Your task to perform on an android device: Do I have any events today? Image 0: 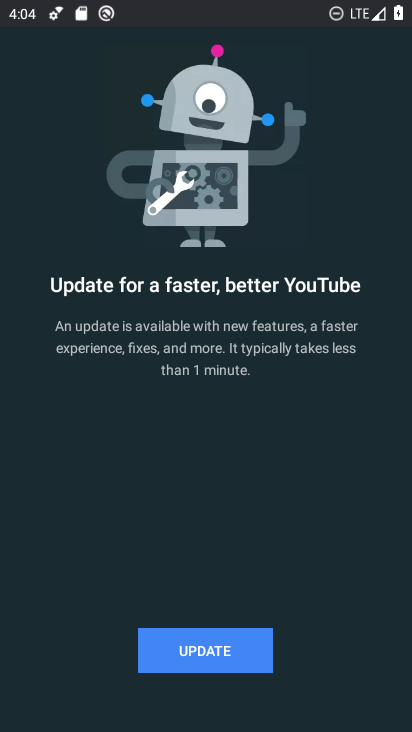
Step 0: press home button
Your task to perform on an android device: Do I have any events today? Image 1: 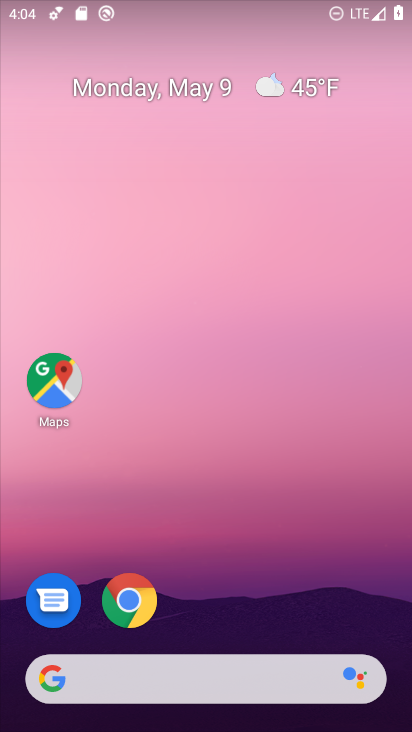
Step 1: drag from (226, 597) to (334, 116)
Your task to perform on an android device: Do I have any events today? Image 2: 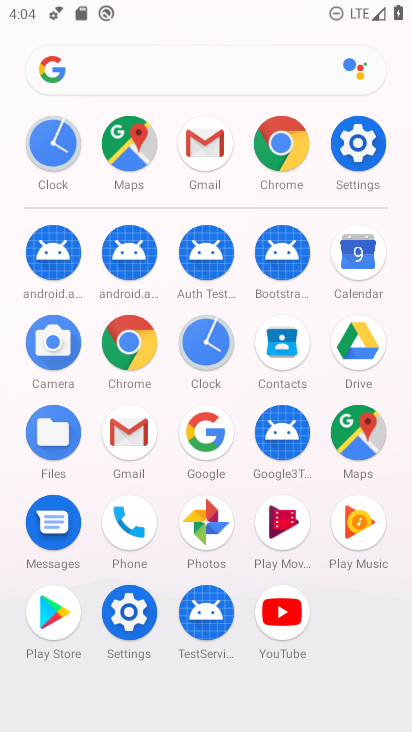
Step 2: click (367, 262)
Your task to perform on an android device: Do I have any events today? Image 3: 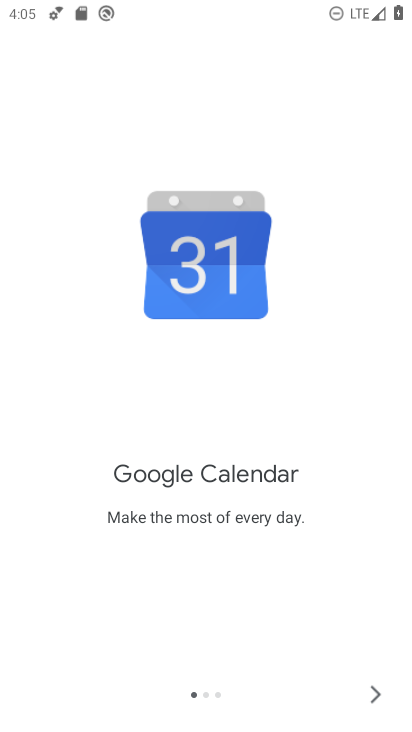
Step 3: click (391, 689)
Your task to perform on an android device: Do I have any events today? Image 4: 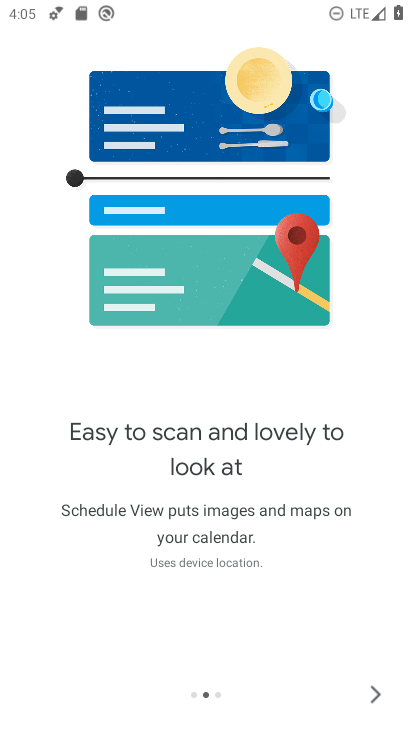
Step 4: click (380, 698)
Your task to perform on an android device: Do I have any events today? Image 5: 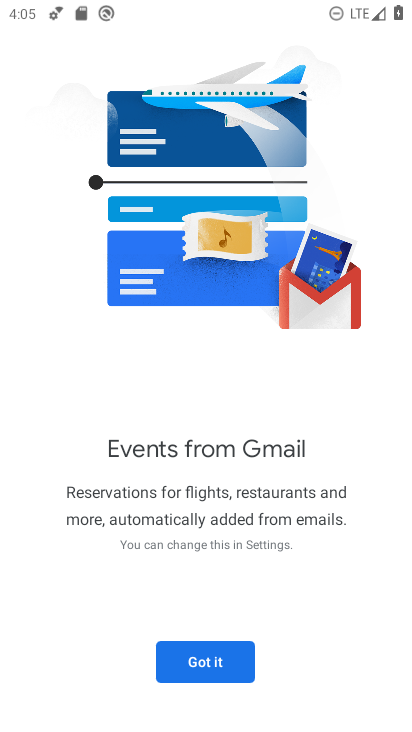
Step 5: click (225, 663)
Your task to perform on an android device: Do I have any events today? Image 6: 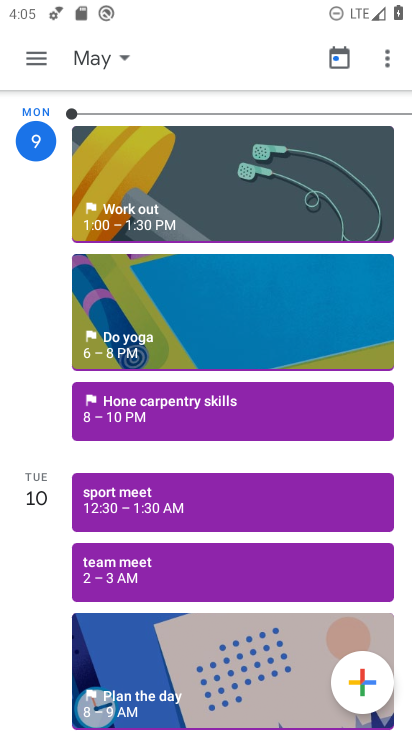
Step 6: click (35, 55)
Your task to perform on an android device: Do I have any events today? Image 7: 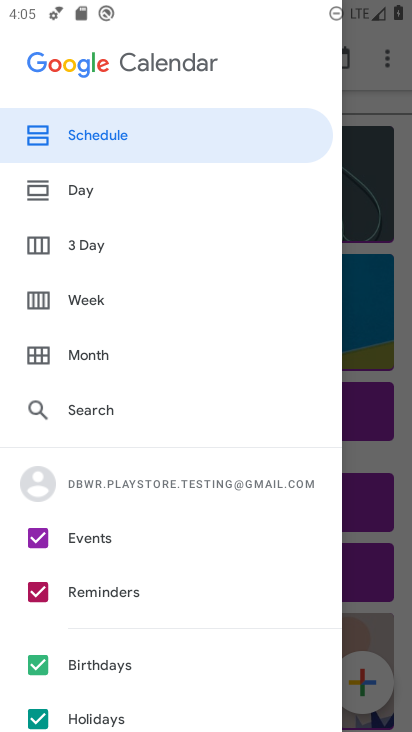
Step 7: click (128, 588)
Your task to perform on an android device: Do I have any events today? Image 8: 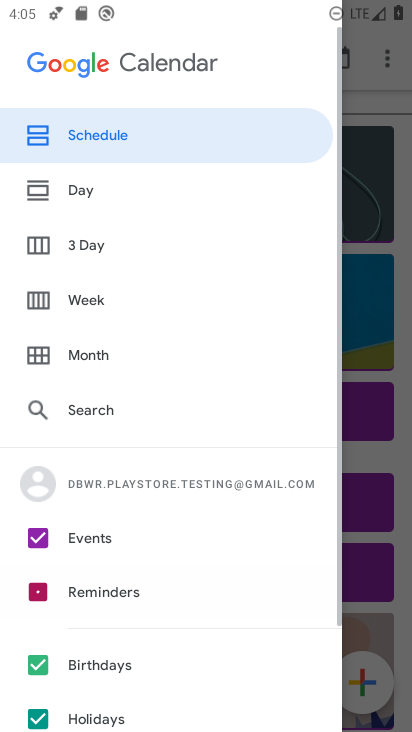
Step 8: click (113, 648)
Your task to perform on an android device: Do I have any events today? Image 9: 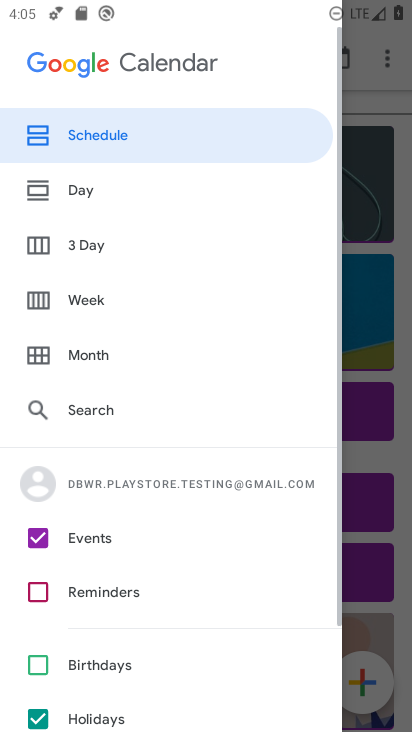
Step 9: drag from (113, 676) to (170, 357)
Your task to perform on an android device: Do I have any events today? Image 10: 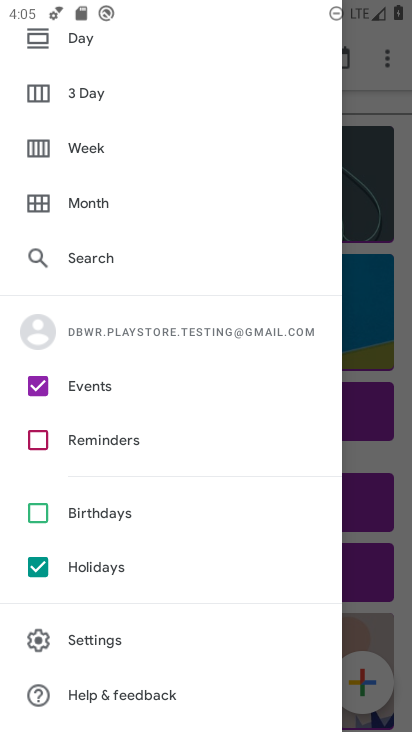
Step 10: click (71, 576)
Your task to perform on an android device: Do I have any events today? Image 11: 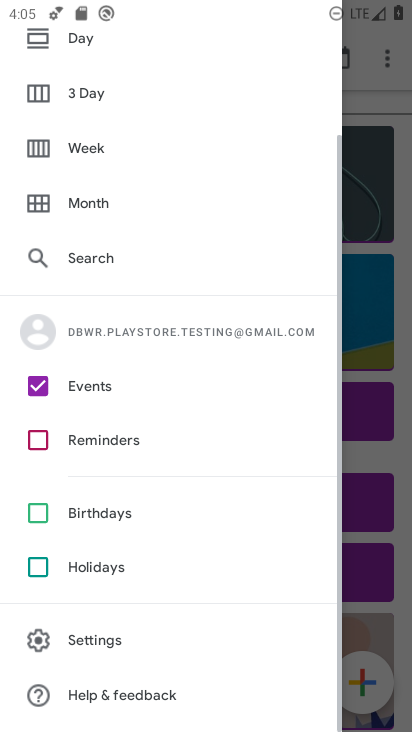
Step 11: drag from (167, 331) to (167, 580)
Your task to perform on an android device: Do I have any events today? Image 12: 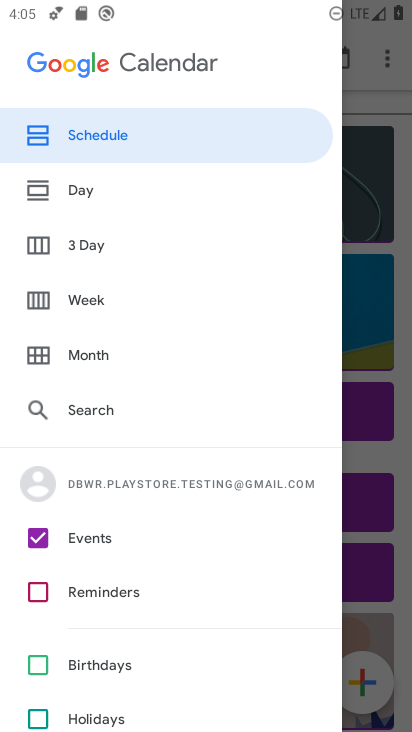
Step 12: click (94, 242)
Your task to perform on an android device: Do I have any events today? Image 13: 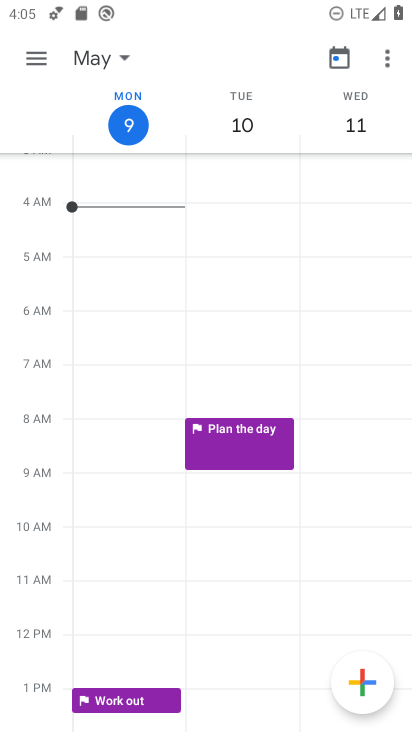
Step 13: task complete